Your task to perform on an android device: open app "Gmail" (install if not already installed) and go to login screen Image 0: 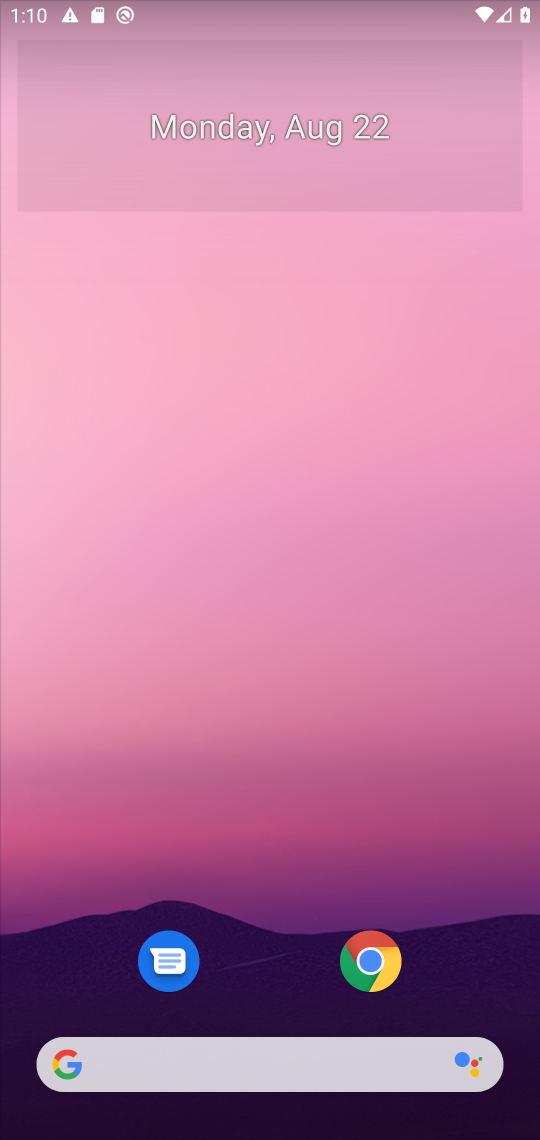
Step 0: press home button
Your task to perform on an android device: open app "Gmail" (install if not already installed) and go to login screen Image 1: 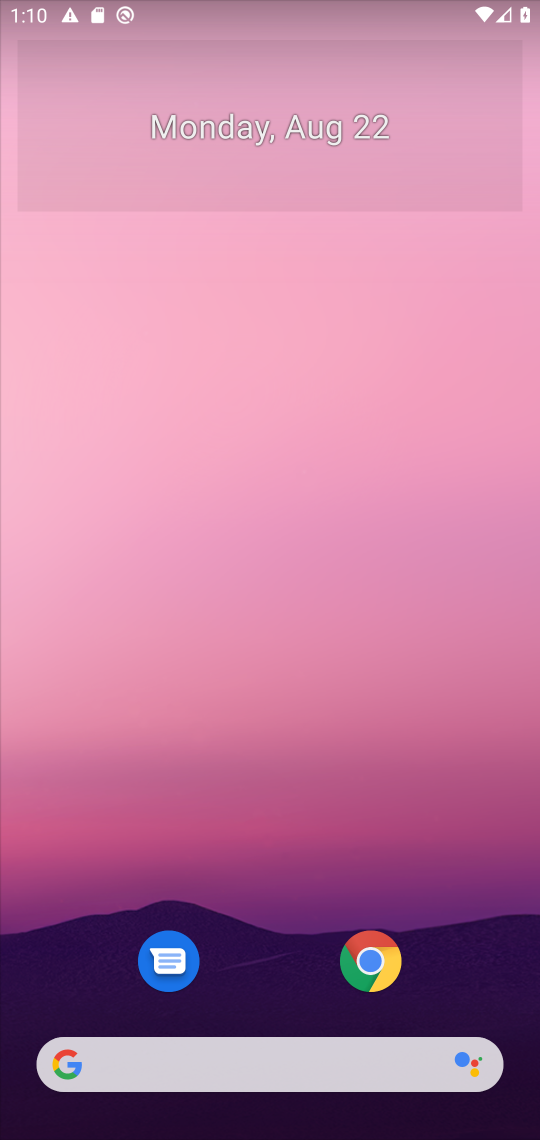
Step 1: drag from (488, 730) to (466, 229)
Your task to perform on an android device: open app "Gmail" (install if not already installed) and go to login screen Image 2: 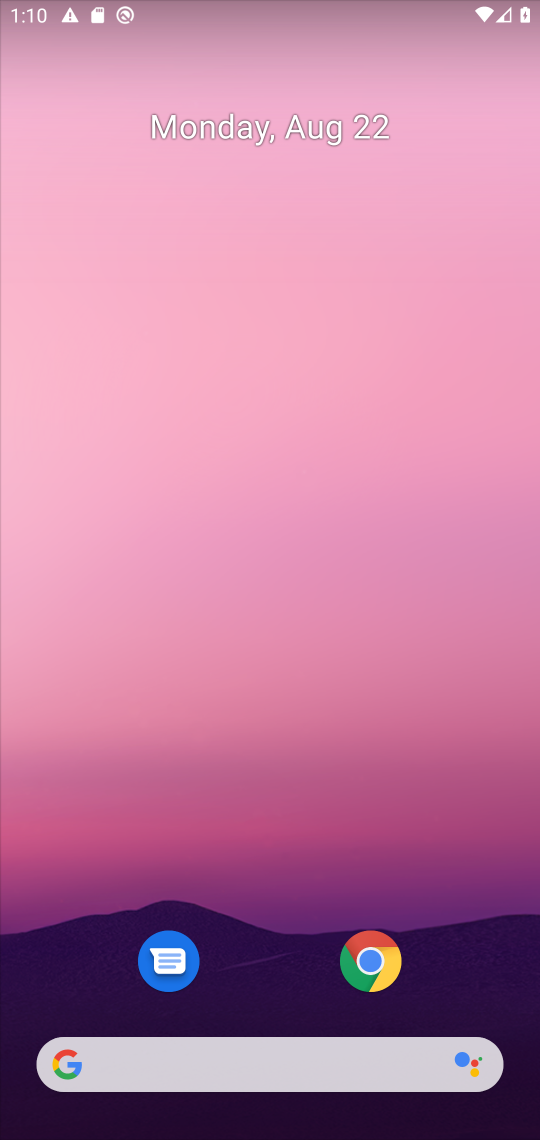
Step 2: drag from (487, 970) to (517, 235)
Your task to perform on an android device: open app "Gmail" (install if not already installed) and go to login screen Image 3: 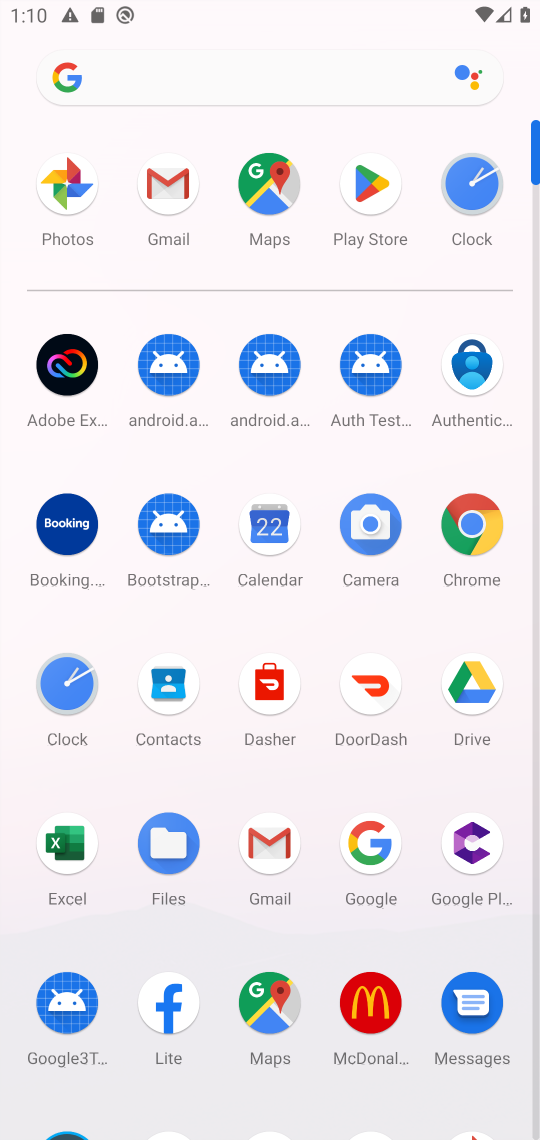
Step 3: click (376, 185)
Your task to perform on an android device: open app "Gmail" (install if not already installed) and go to login screen Image 4: 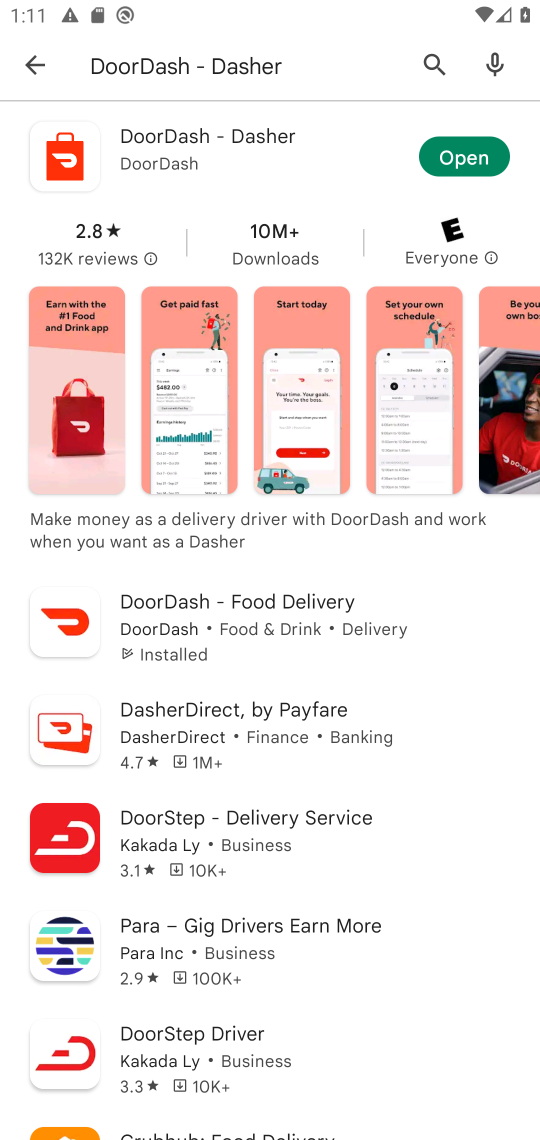
Step 4: press back button
Your task to perform on an android device: open app "Gmail" (install if not already installed) and go to login screen Image 5: 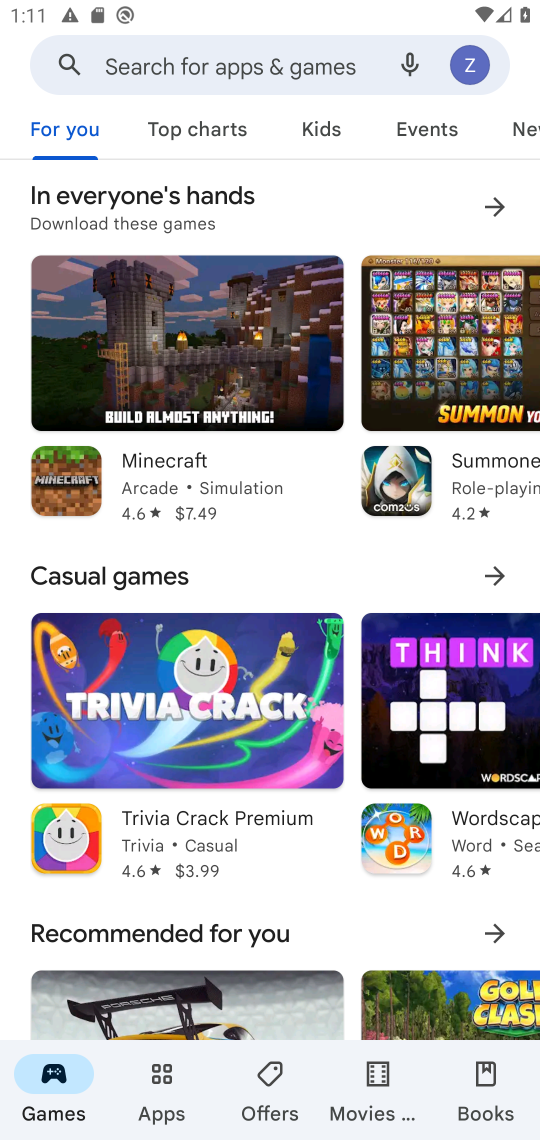
Step 5: click (265, 65)
Your task to perform on an android device: open app "Gmail" (install if not already installed) and go to login screen Image 6: 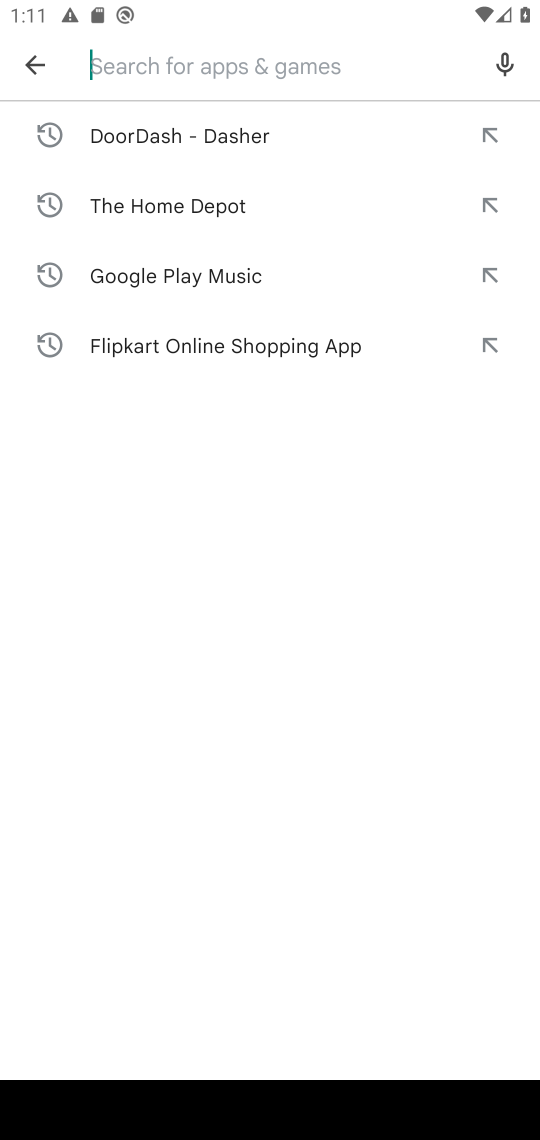
Step 6: press enter
Your task to perform on an android device: open app "Gmail" (install if not already installed) and go to login screen Image 7: 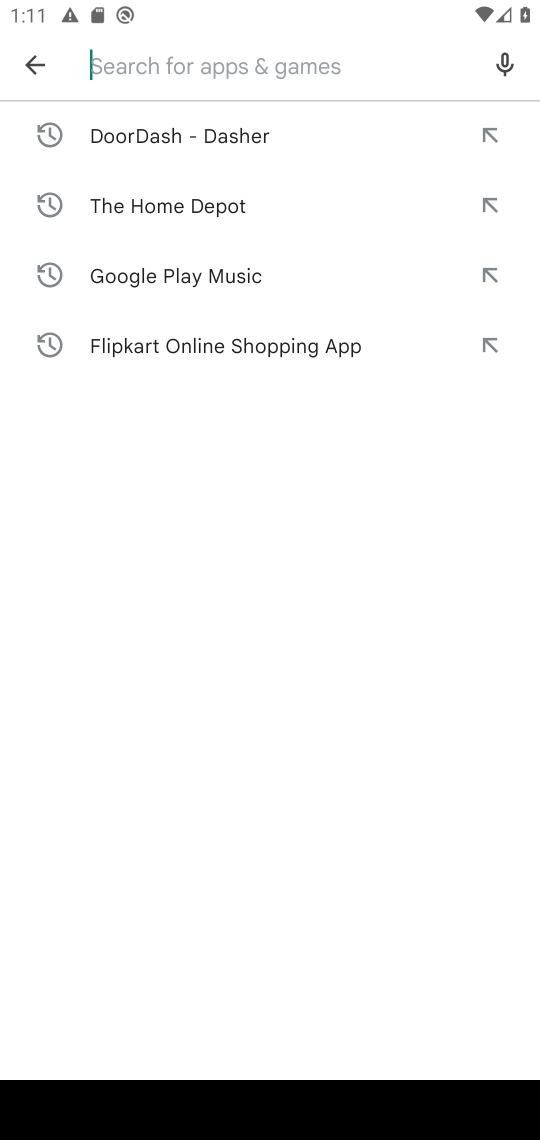
Step 7: type "gmail"
Your task to perform on an android device: open app "Gmail" (install if not already installed) and go to login screen Image 8: 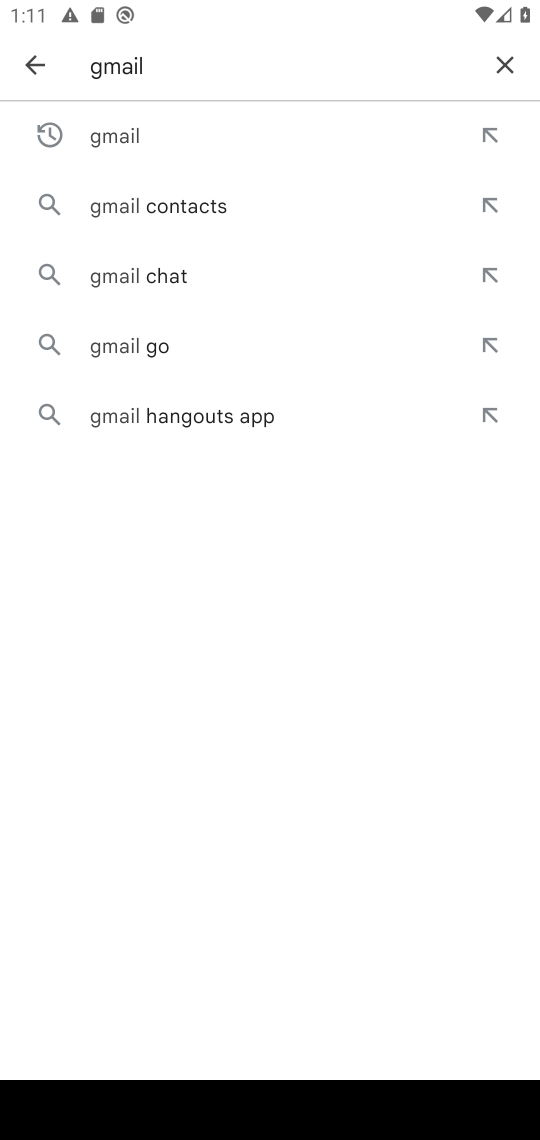
Step 8: click (140, 123)
Your task to perform on an android device: open app "Gmail" (install if not already installed) and go to login screen Image 9: 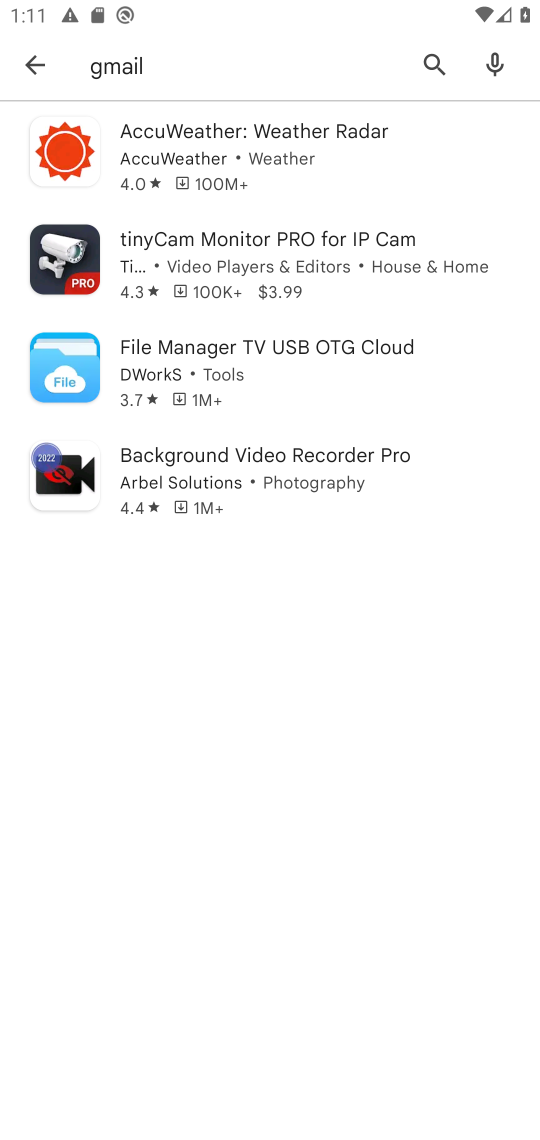
Step 9: task complete